Your task to perform on an android device: Turn on the flashlight Image 0: 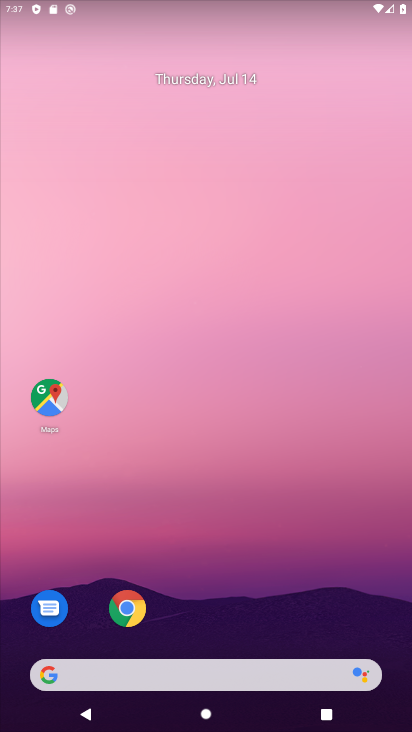
Step 0: drag from (249, 574) to (223, 49)
Your task to perform on an android device: Turn on the flashlight Image 1: 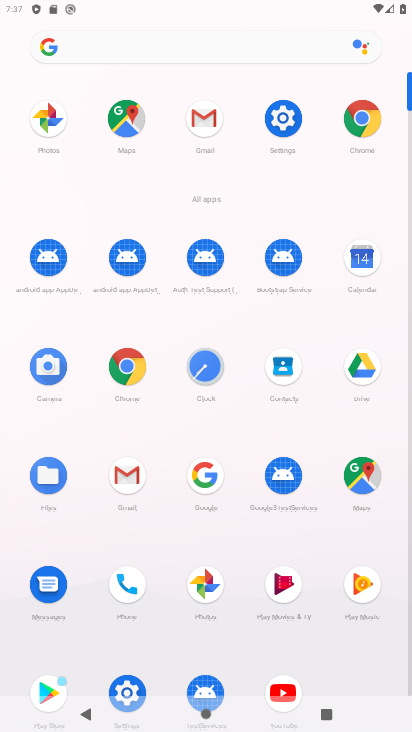
Step 1: click (276, 100)
Your task to perform on an android device: Turn on the flashlight Image 2: 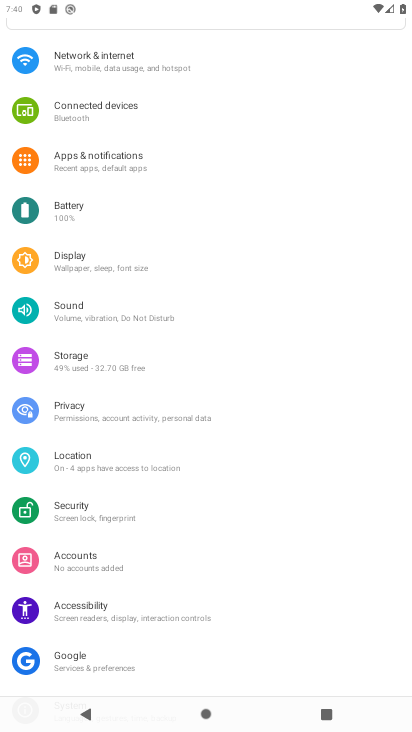
Step 2: click (57, 311)
Your task to perform on an android device: Turn on the flashlight Image 3: 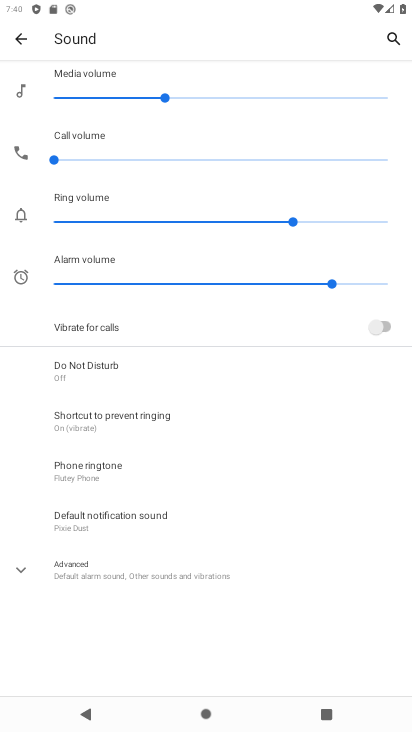
Step 3: task complete